Your task to perform on an android device: open chrome privacy settings Image 0: 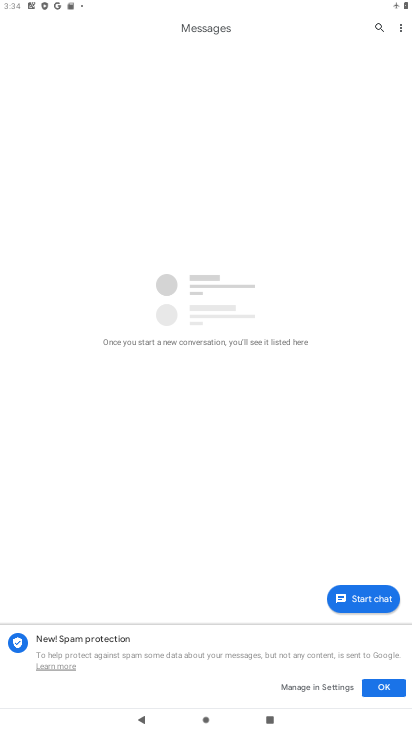
Step 0: task complete